Your task to perform on an android device: see tabs open on other devices in the chrome app Image 0: 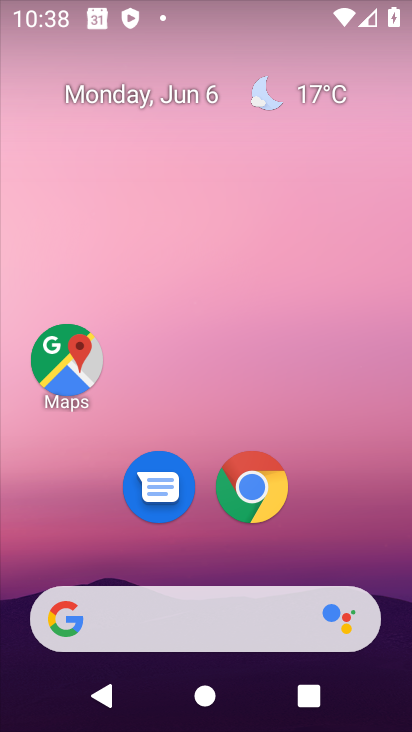
Step 0: click (239, 489)
Your task to perform on an android device: see tabs open on other devices in the chrome app Image 1: 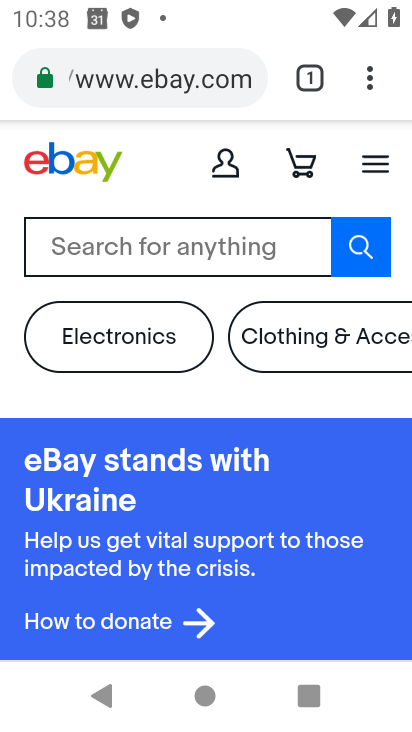
Step 1: click (362, 83)
Your task to perform on an android device: see tabs open on other devices in the chrome app Image 2: 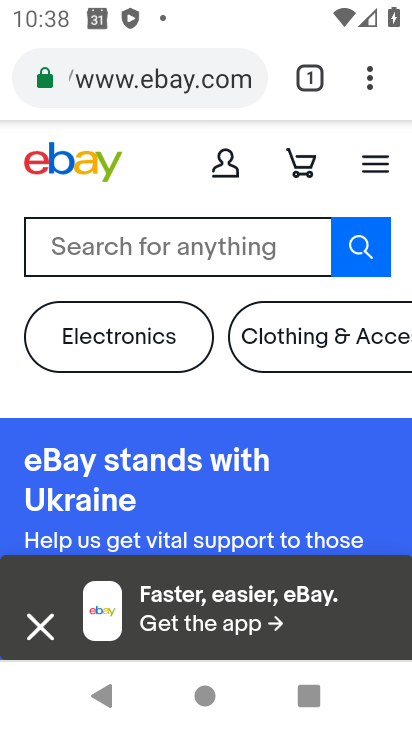
Step 2: click (372, 75)
Your task to perform on an android device: see tabs open on other devices in the chrome app Image 3: 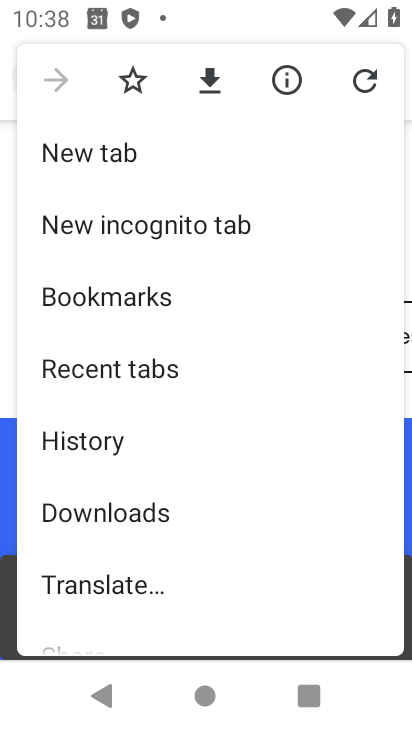
Step 3: click (98, 362)
Your task to perform on an android device: see tabs open on other devices in the chrome app Image 4: 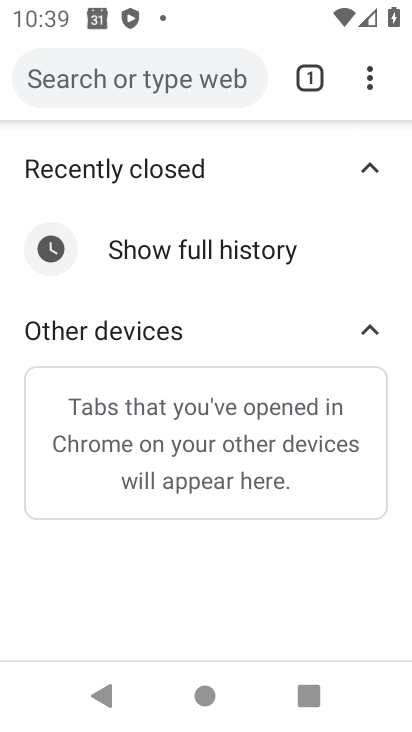
Step 4: task complete